Your task to perform on an android device: Open location settings Image 0: 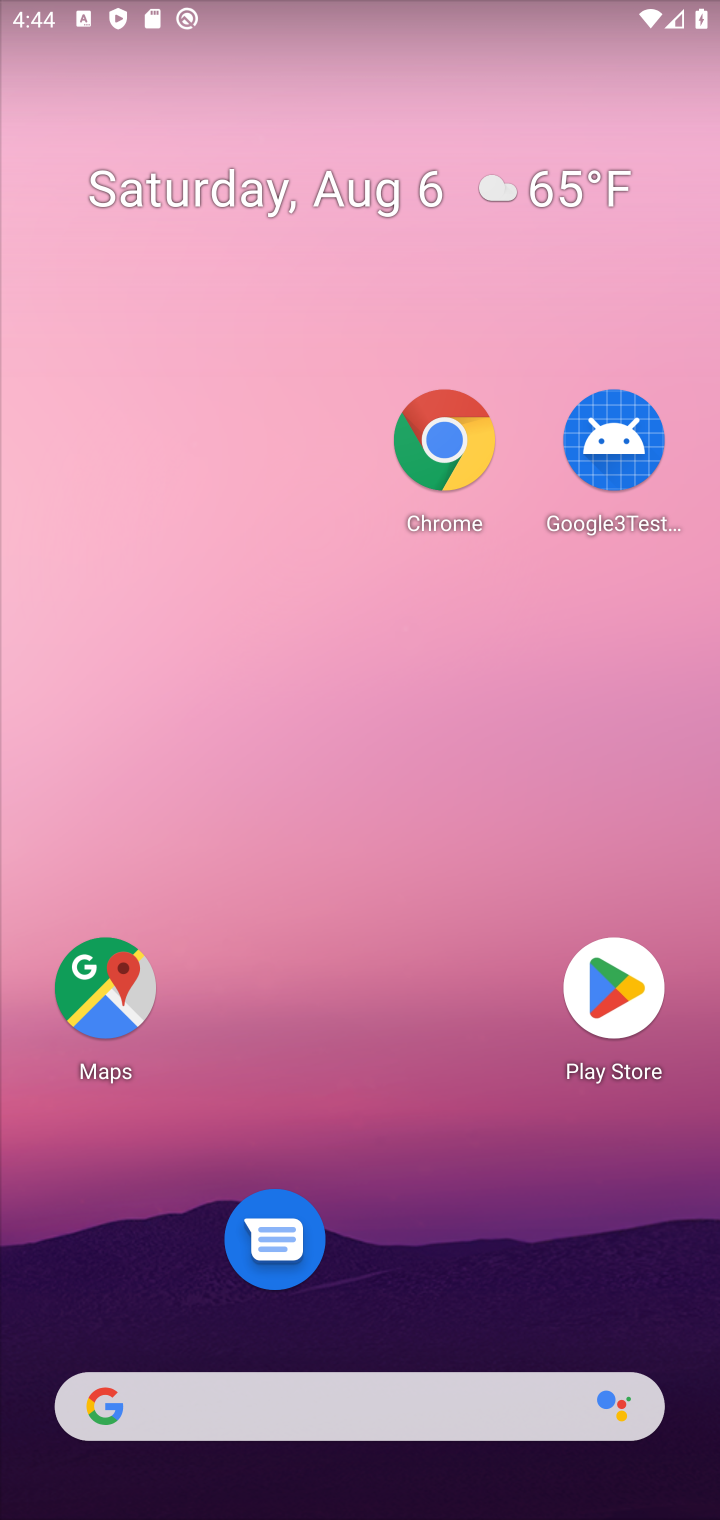
Step 0: drag from (556, 1391) to (512, 314)
Your task to perform on an android device: Open location settings Image 1: 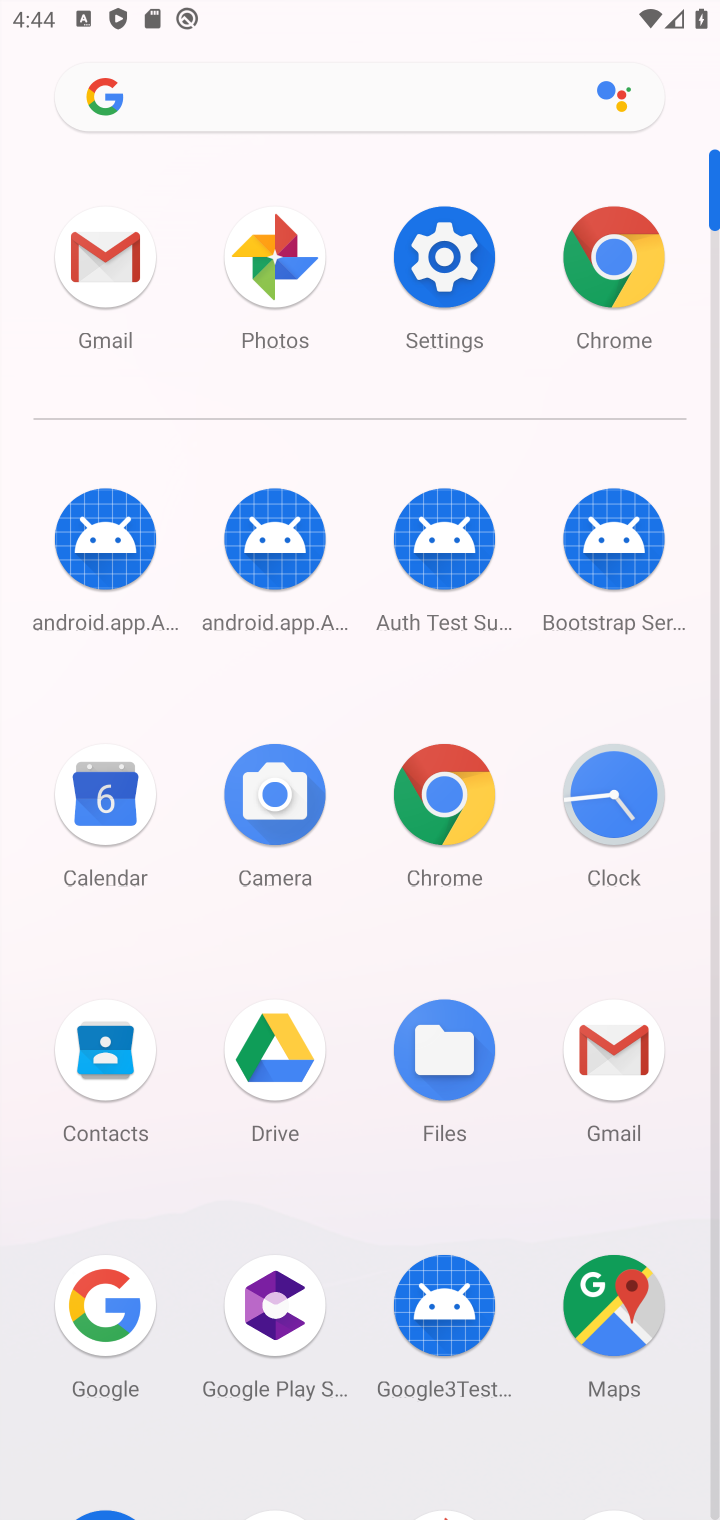
Step 1: click (433, 262)
Your task to perform on an android device: Open location settings Image 2: 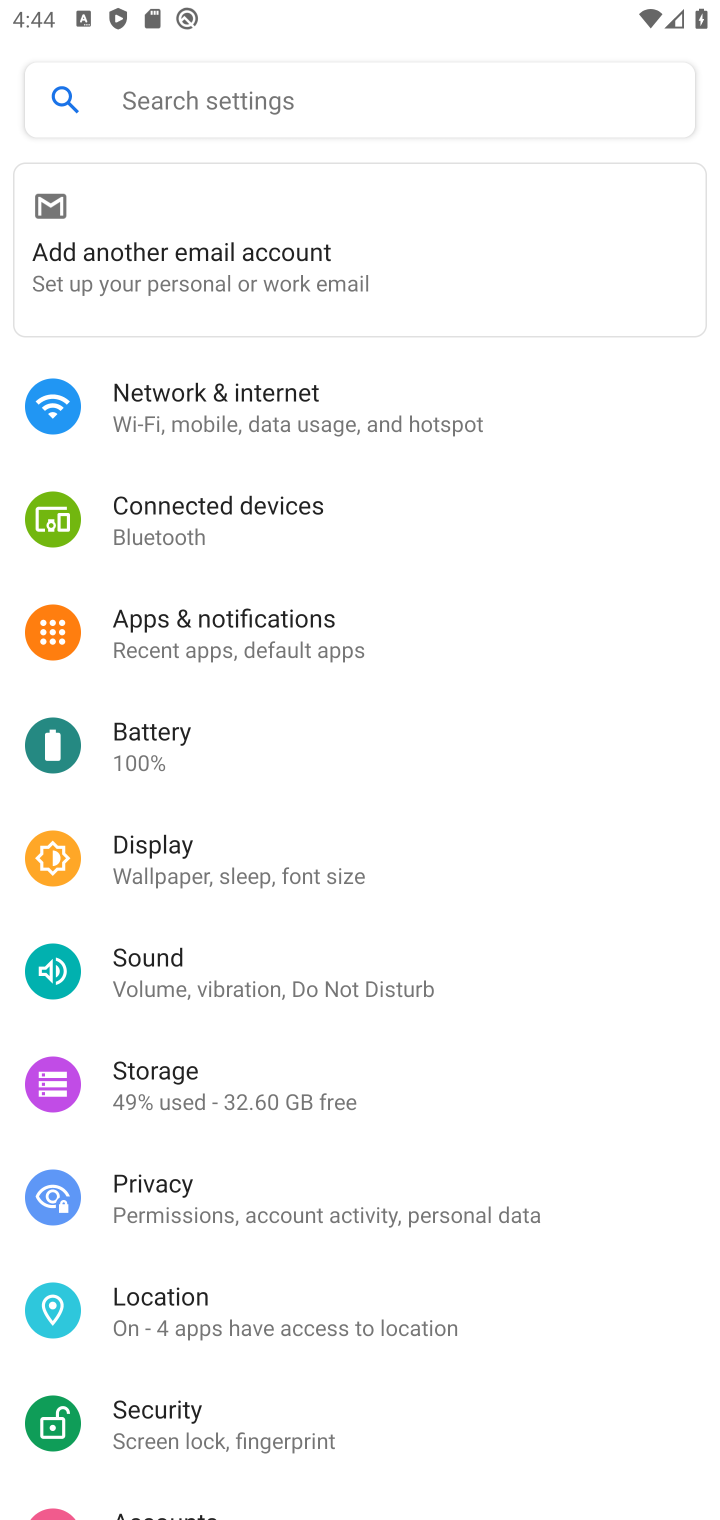
Step 2: click (180, 1294)
Your task to perform on an android device: Open location settings Image 3: 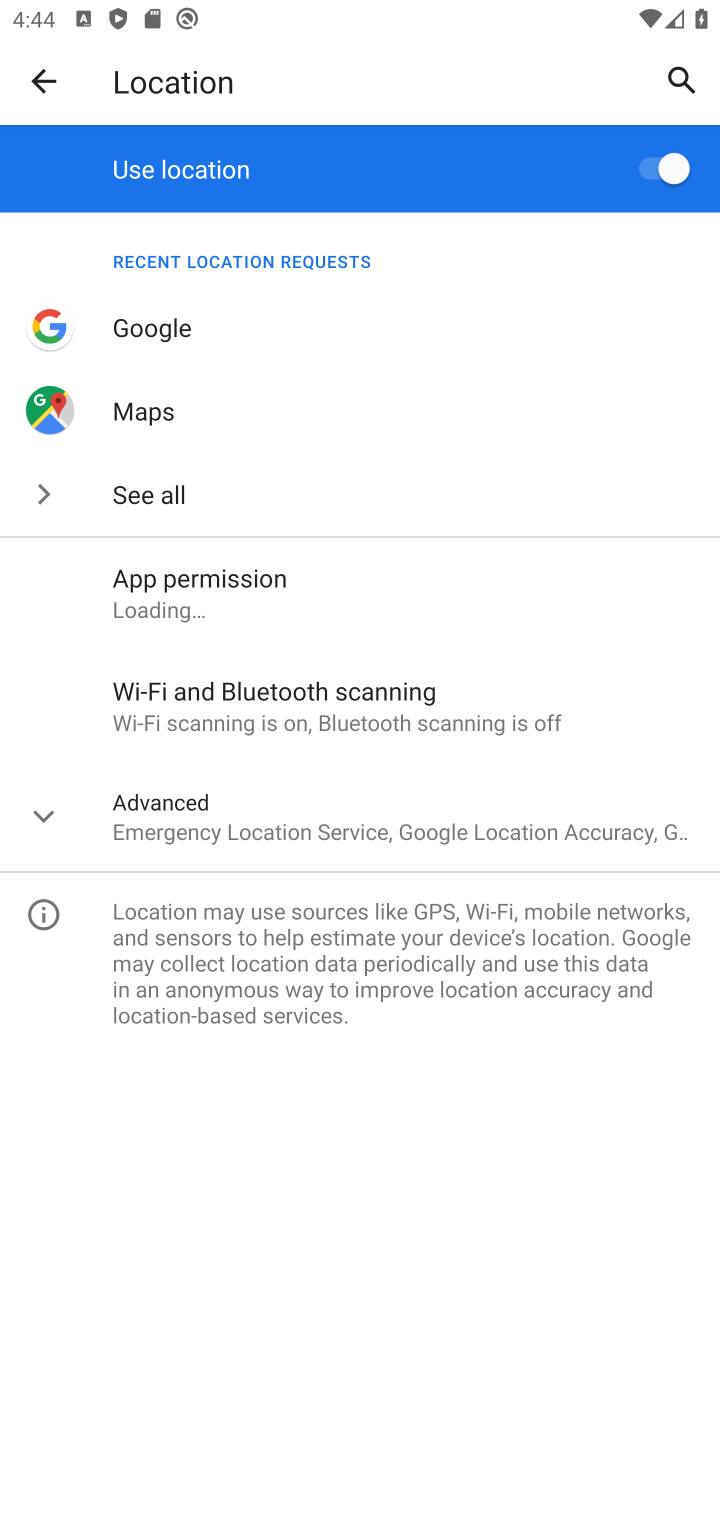
Step 3: task complete